Your task to perform on an android device: turn on bluetooth scan Image 0: 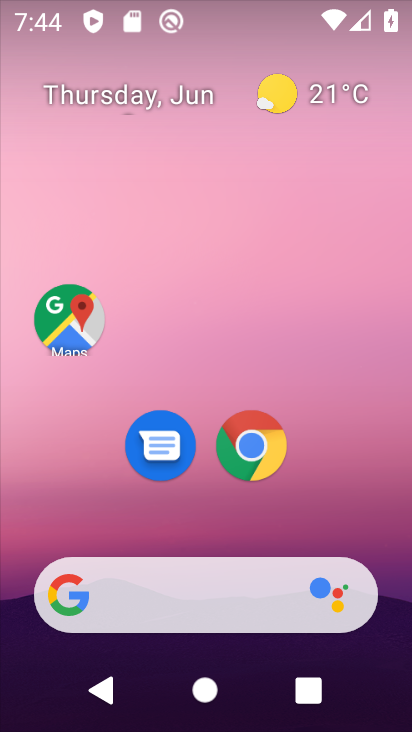
Step 0: drag from (328, 530) to (333, 161)
Your task to perform on an android device: turn on bluetooth scan Image 1: 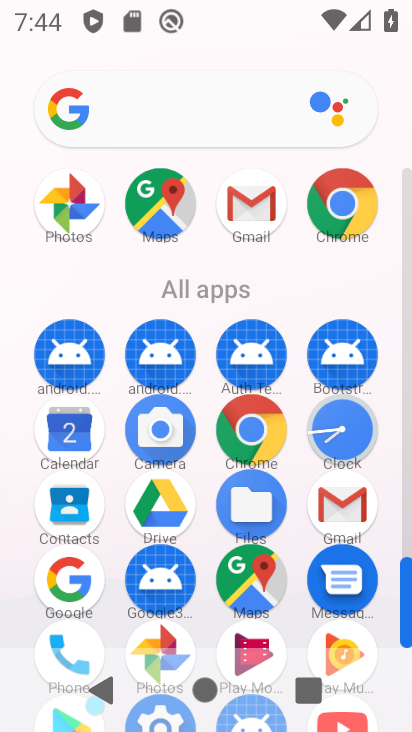
Step 1: drag from (305, 617) to (332, 132)
Your task to perform on an android device: turn on bluetooth scan Image 2: 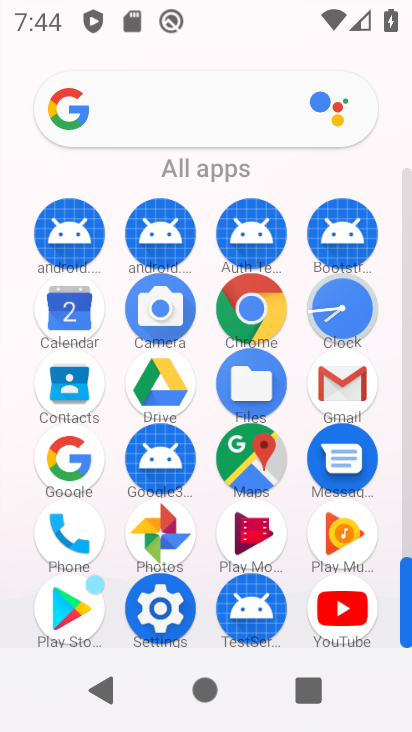
Step 2: click (159, 607)
Your task to perform on an android device: turn on bluetooth scan Image 3: 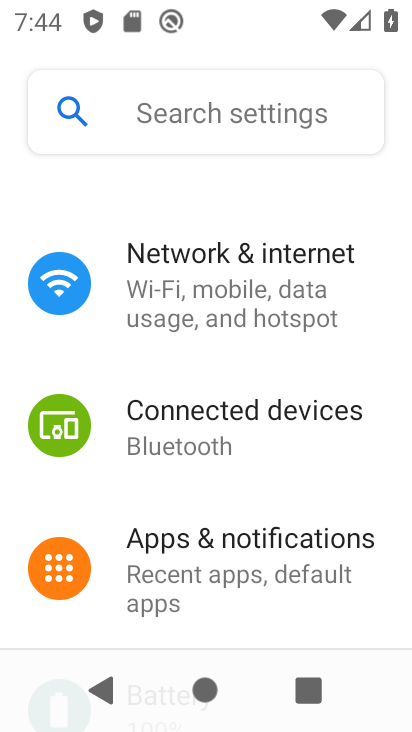
Step 3: drag from (290, 582) to (328, 242)
Your task to perform on an android device: turn on bluetooth scan Image 4: 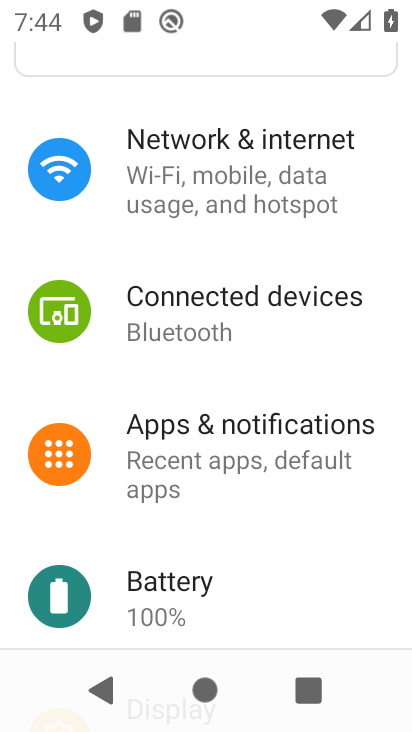
Step 4: drag from (319, 561) to (350, 216)
Your task to perform on an android device: turn on bluetooth scan Image 5: 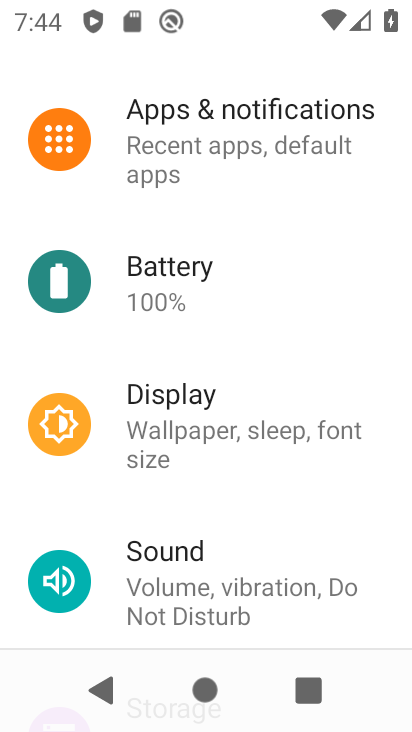
Step 5: drag from (296, 550) to (310, 243)
Your task to perform on an android device: turn on bluetooth scan Image 6: 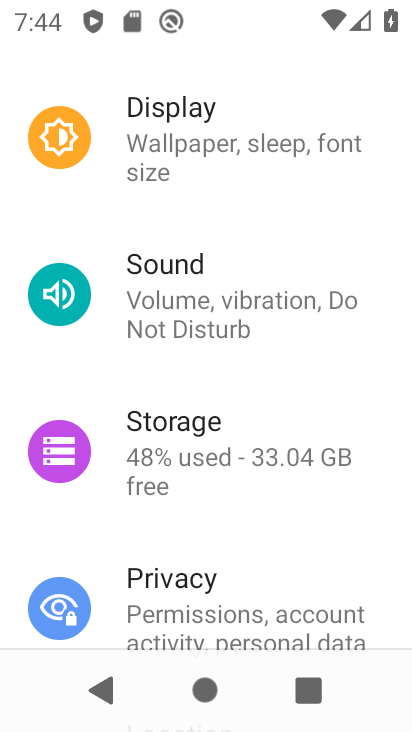
Step 6: drag from (314, 533) to (327, 242)
Your task to perform on an android device: turn on bluetooth scan Image 7: 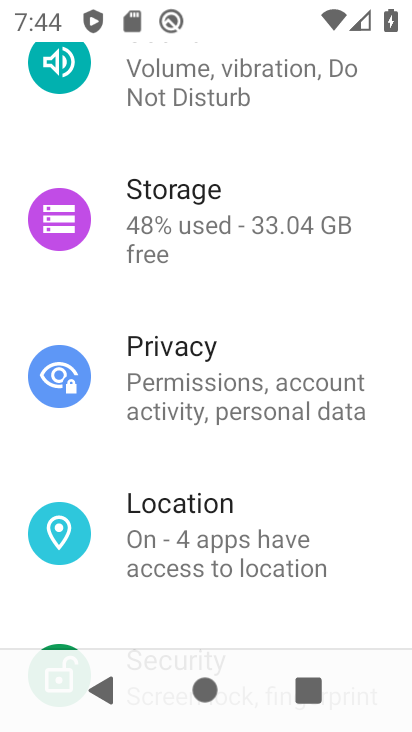
Step 7: click (227, 547)
Your task to perform on an android device: turn on bluetooth scan Image 8: 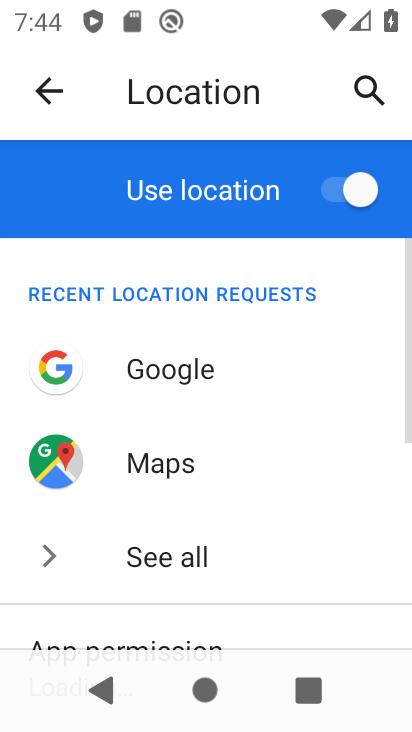
Step 8: drag from (245, 580) to (246, 204)
Your task to perform on an android device: turn on bluetooth scan Image 9: 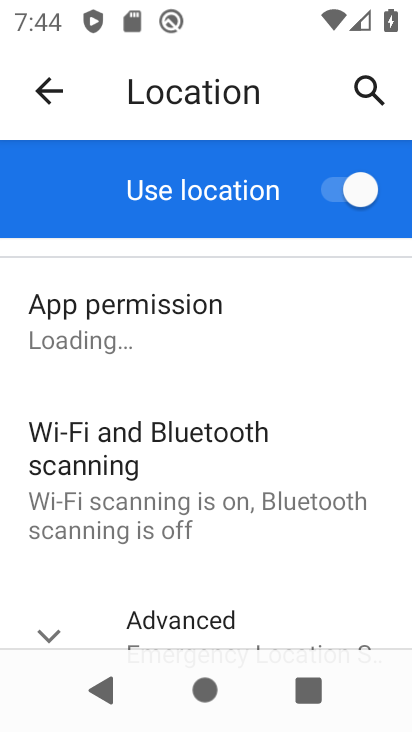
Step 9: drag from (277, 532) to (297, 228)
Your task to perform on an android device: turn on bluetooth scan Image 10: 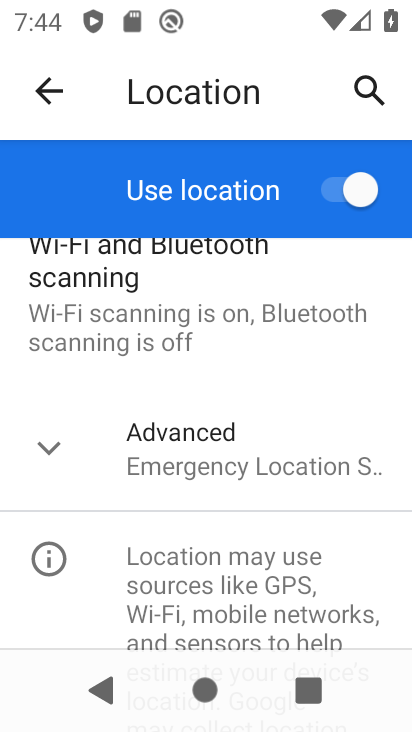
Step 10: drag from (219, 604) to (260, 262)
Your task to perform on an android device: turn on bluetooth scan Image 11: 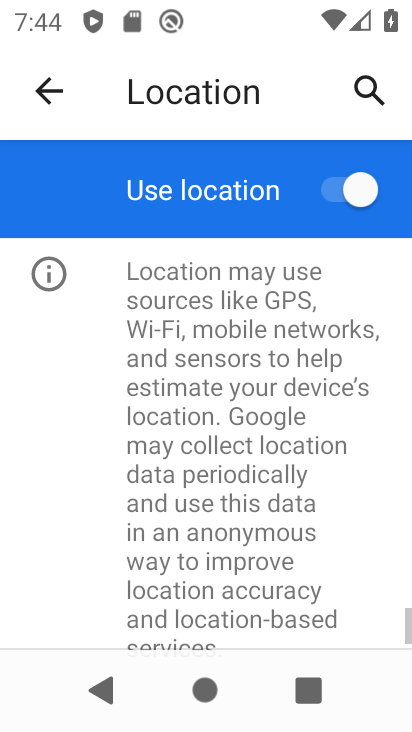
Step 11: drag from (193, 565) to (219, 254)
Your task to perform on an android device: turn on bluetooth scan Image 12: 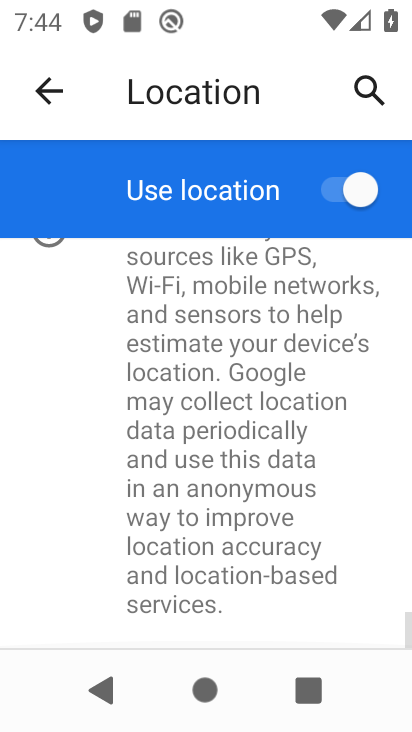
Step 12: drag from (190, 517) to (179, 606)
Your task to perform on an android device: turn on bluetooth scan Image 13: 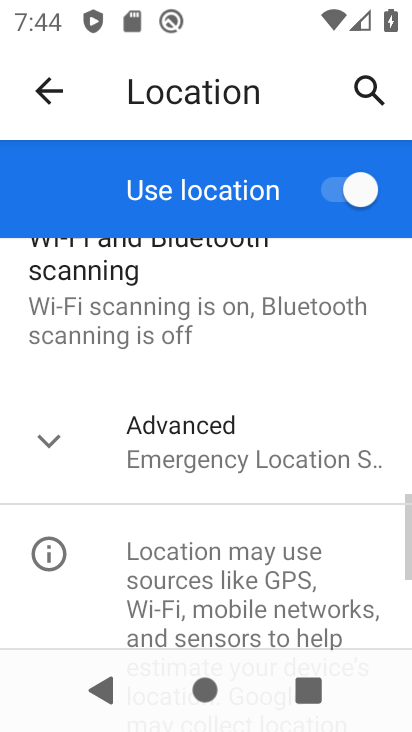
Step 13: drag from (173, 445) to (186, 544)
Your task to perform on an android device: turn on bluetooth scan Image 14: 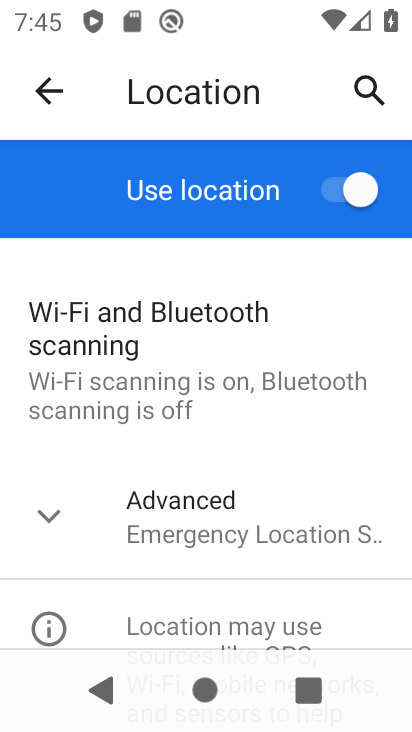
Step 14: click (130, 410)
Your task to perform on an android device: turn on bluetooth scan Image 15: 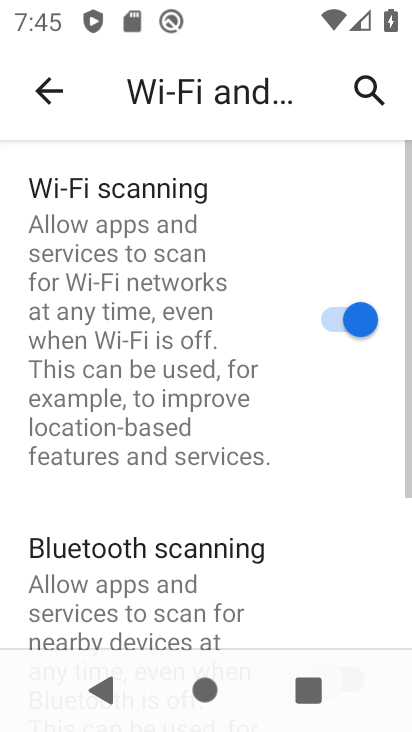
Step 15: drag from (226, 573) to (228, 335)
Your task to perform on an android device: turn on bluetooth scan Image 16: 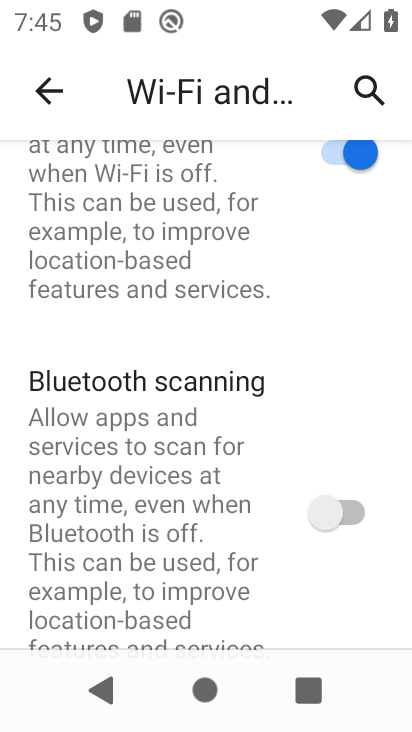
Step 16: click (318, 520)
Your task to perform on an android device: turn on bluetooth scan Image 17: 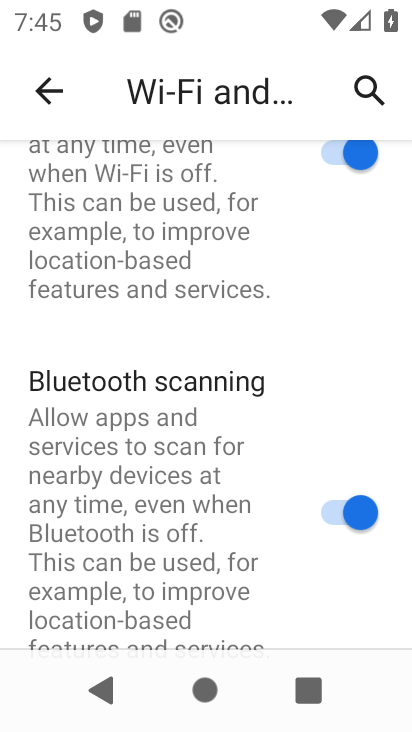
Step 17: task complete